Your task to perform on an android device: change text size in settings app Image 0: 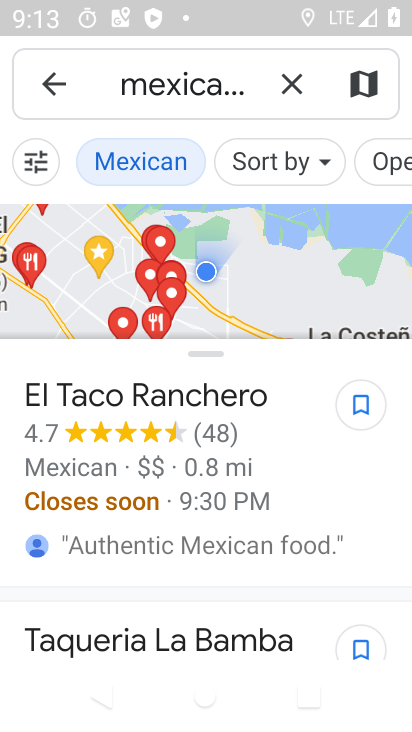
Step 0: press home button
Your task to perform on an android device: change text size in settings app Image 1: 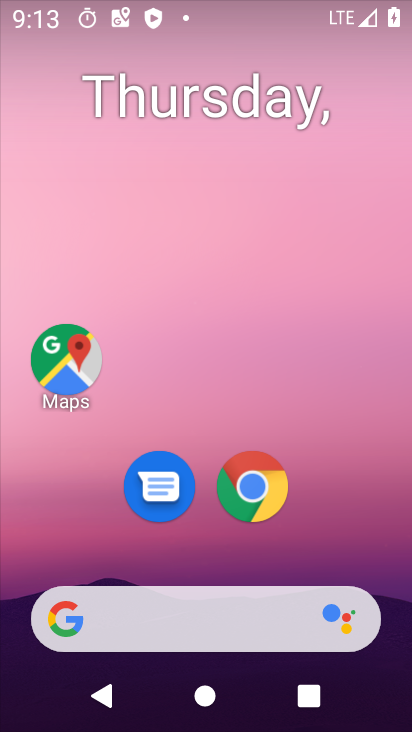
Step 1: drag from (210, 681) to (247, 200)
Your task to perform on an android device: change text size in settings app Image 2: 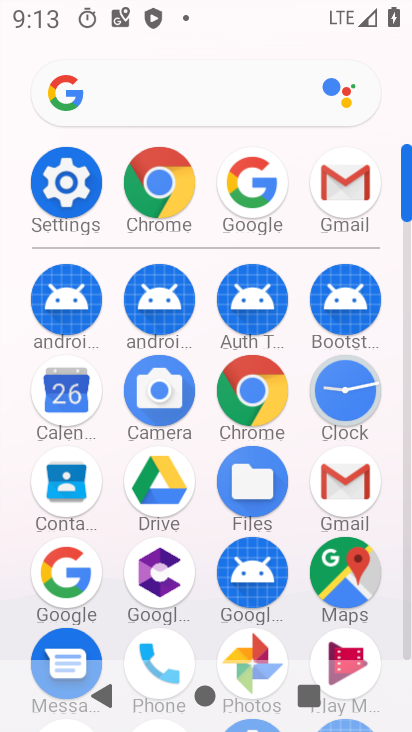
Step 2: click (66, 183)
Your task to perform on an android device: change text size in settings app Image 3: 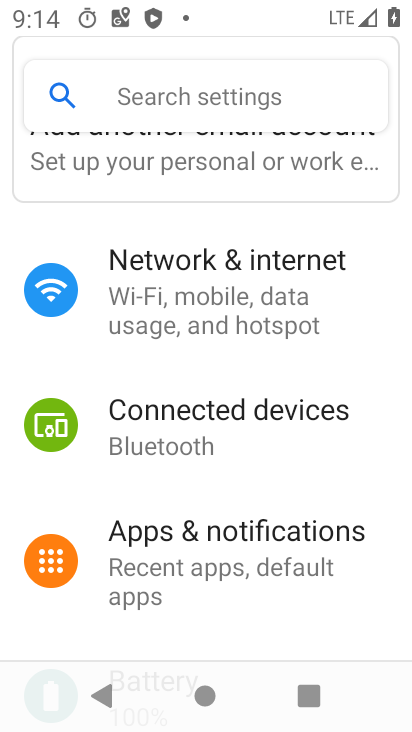
Step 3: drag from (172, 495) to (207, 146)
Your task to perform on an android device: change text size in settings app Image 4: 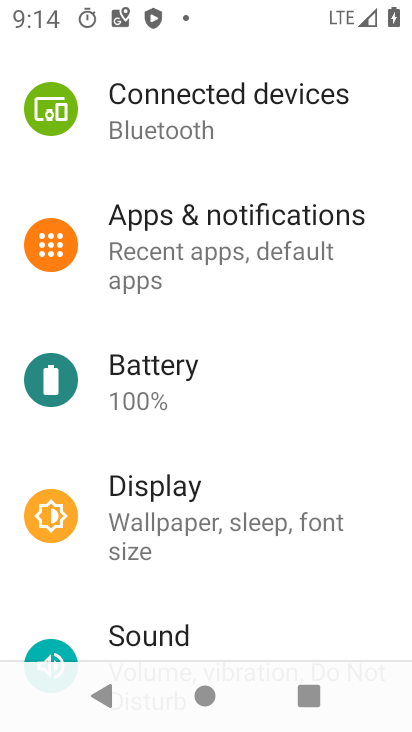
Step 4: click (176, 528)
Your task to perform on an android device: change text size in settings app Image 5: 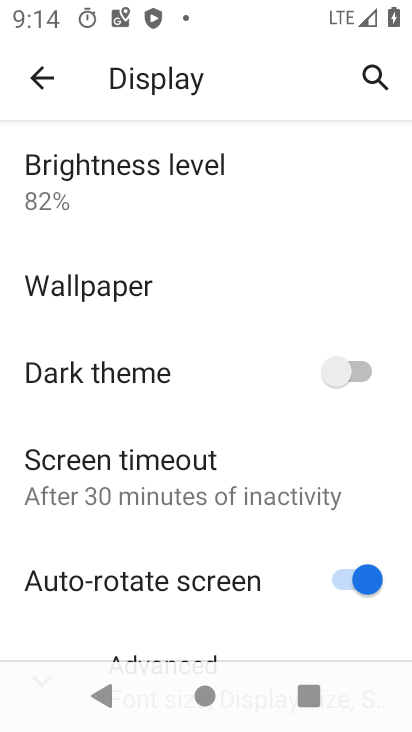
Step 5: drag from (175, 569) to (228, 168)
Your task to perform on an android device: change text size in settings app Image 6: 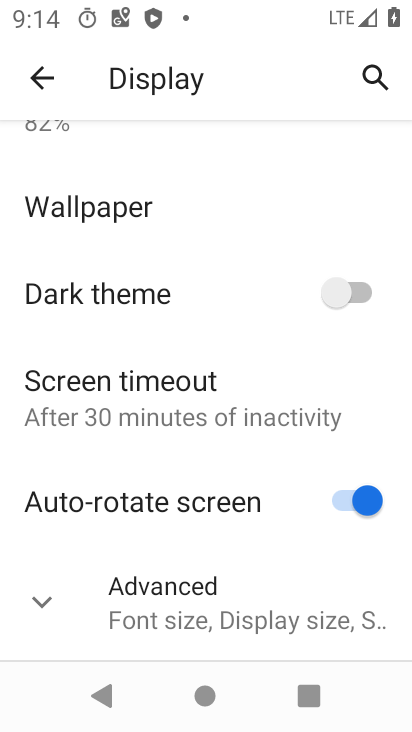
Step 6: click (176, 603)
Your task to perform on an android device: change text size in settings app Image 7: 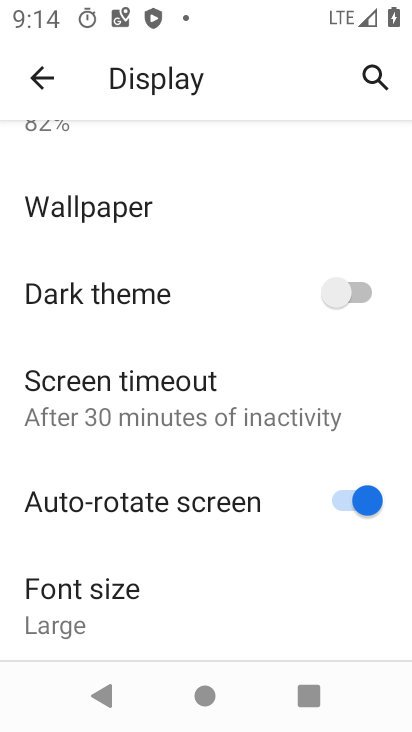
Step 7: click (156, 598)
Your task to perform on an android device: change text size in settings app Image 8: 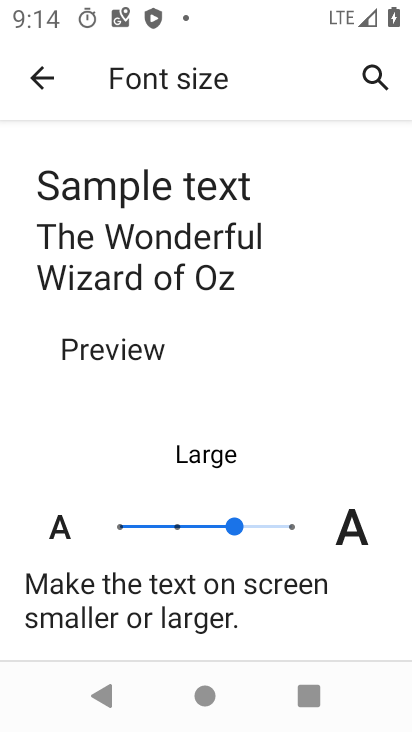
Step 8: click (169, 539)
Your task to perform on an android device: change text size in settings app Image 9: 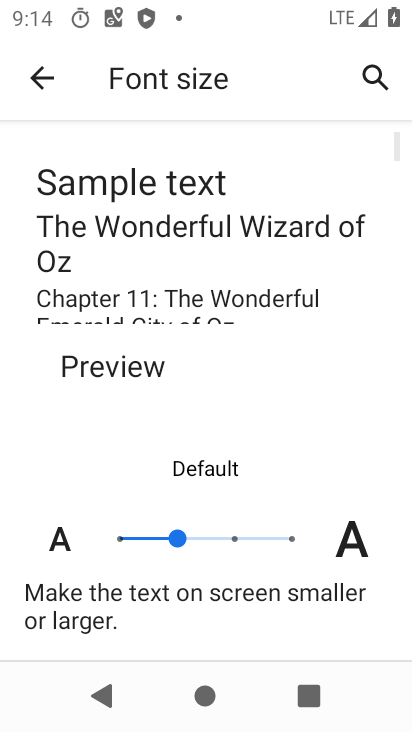
Step 9: task complete